Your task to perform on an android device: Is it going to rain this weekend? Image 0: 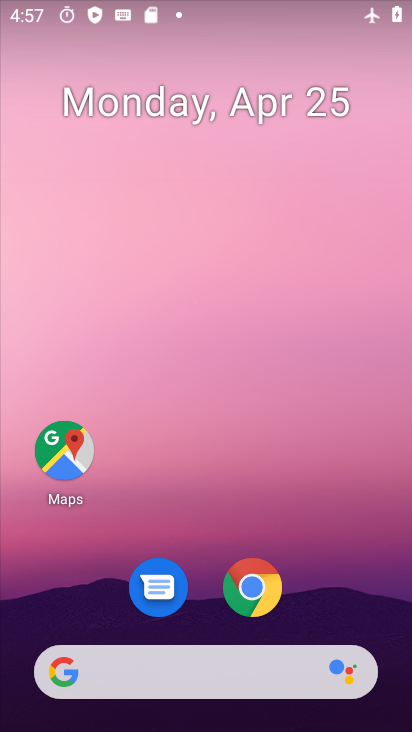
Step 0: drag from (326, 608) to (324, 118)
Your task to perform on an android device: Is it going to rain this weekend? Image 1: 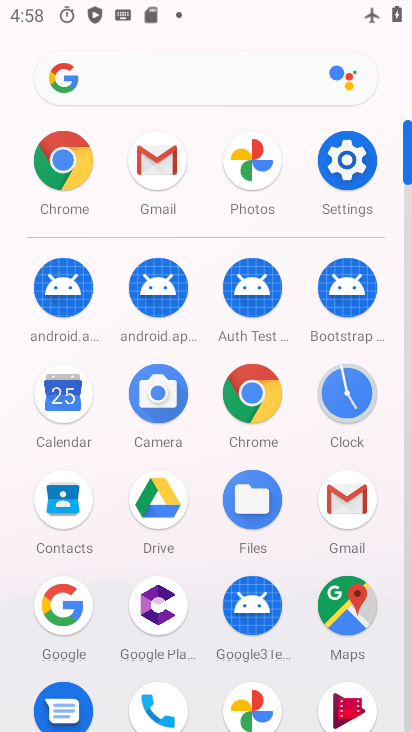
Step 1: click (248, 403)
Your task to perform on an android device: Is it going to rain this weekend? Image 2: 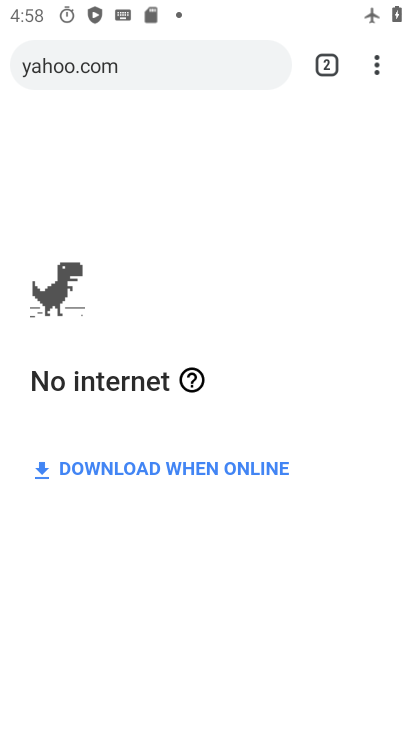
Step 2: click (190, 53)
Your task to perform on an android device: Is it going to rain this weekend? Image 3: 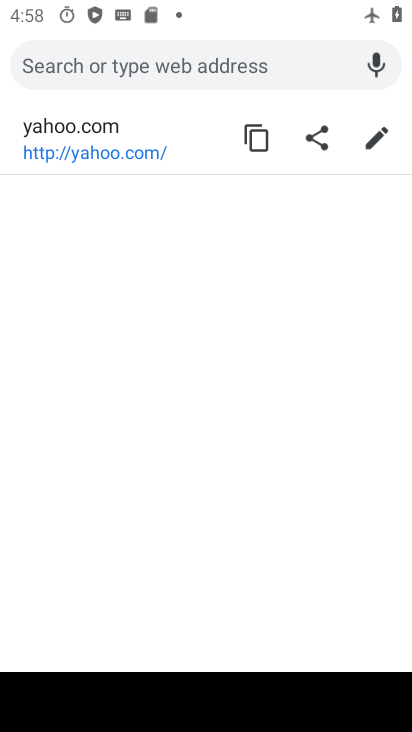
Step 3: type "weather"
Your task to perform on an android device: Is it going to rain this weekend? Image 4: 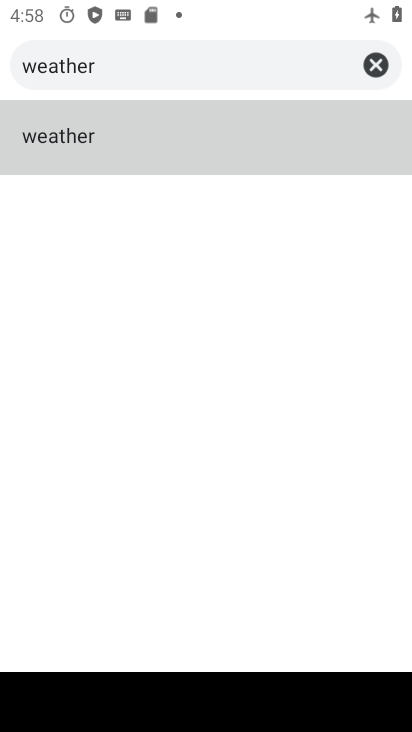
Step 4: click (28, 132)
Your task to perform on an android device: Is it going to rain this weekend? Image 5: 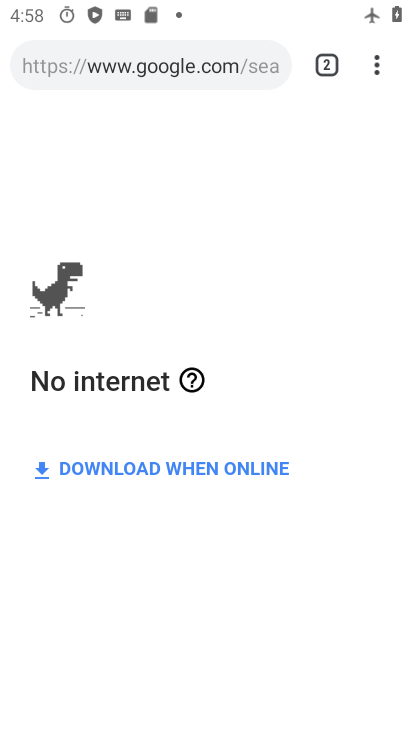
Step 5: task complete